Your task to perform on an android device: uninstall "Paramount+ | Peak Streaming" Image 0: 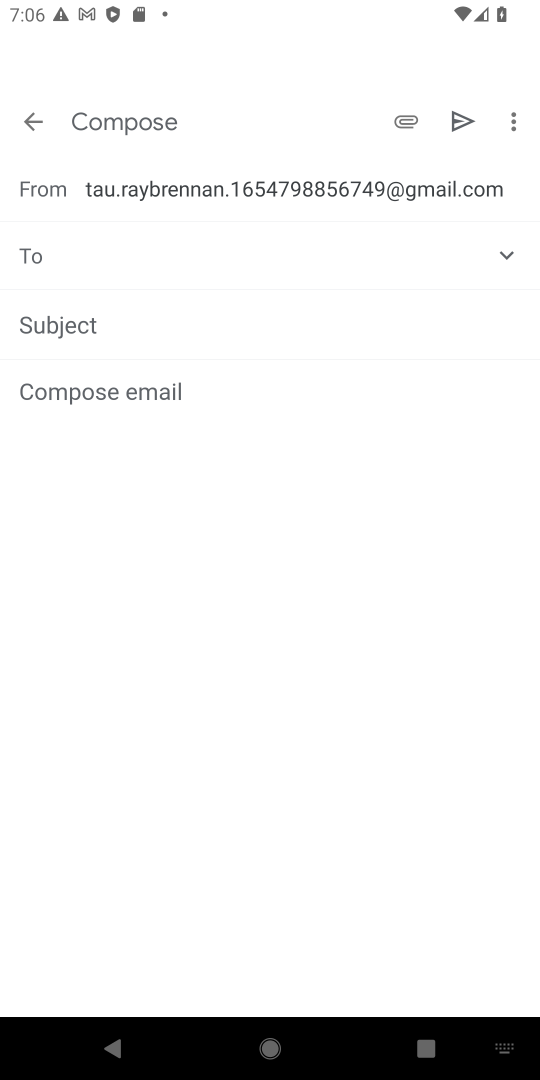
Step 0: press home button
Your task to perform on an android device: uninstall "Paramount+ | Peak Streaming" Image 1: 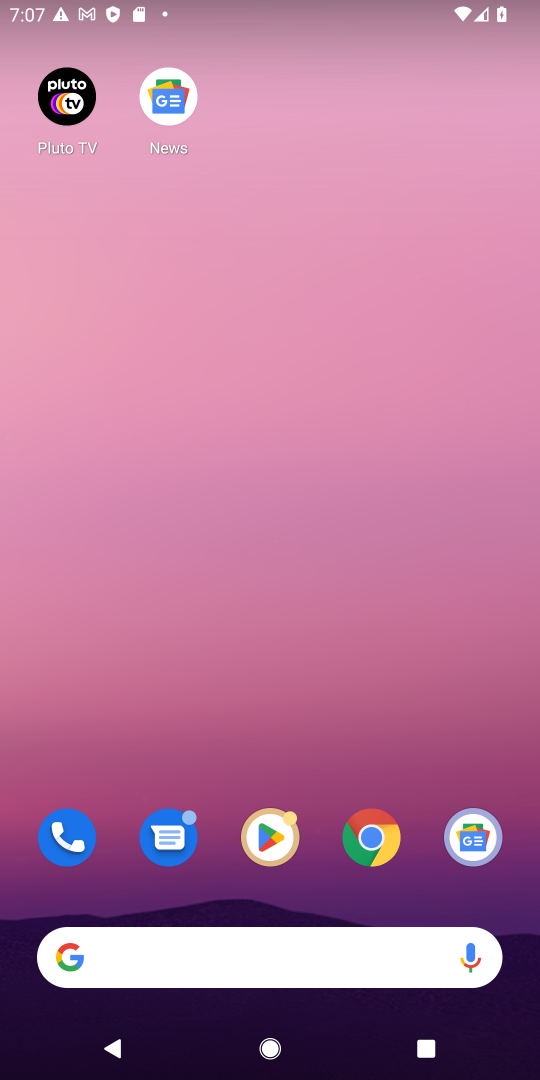
Step 1: click (263, 823)
Your task to perform on an android device: uninstall "Paramount+ | Peak Streaming" Image 2: 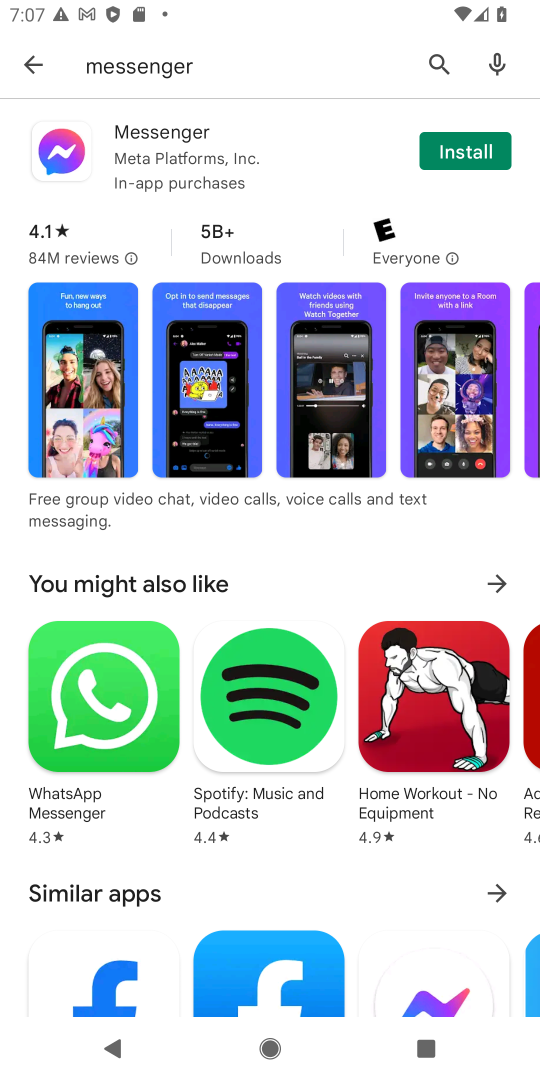
Step 2: click (193, 74)
Your task to perform on an android device: uninstall "Paramount+ | Peak Streaming" Image 3: 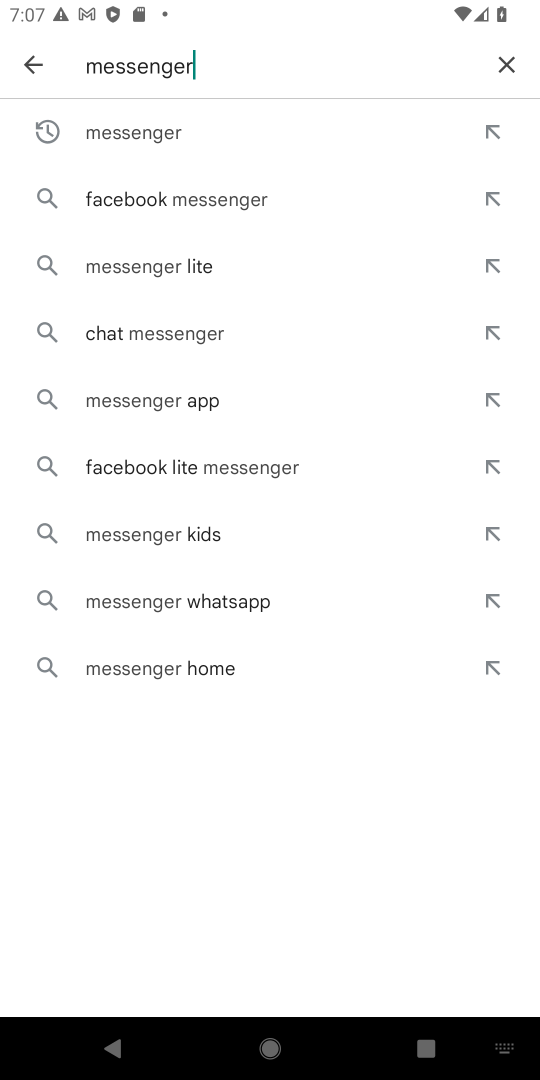
Step 3: click (500, 72)
Your task to perform on an android device: uninstall "Paramount+ | Peak Streaming" Image 4: 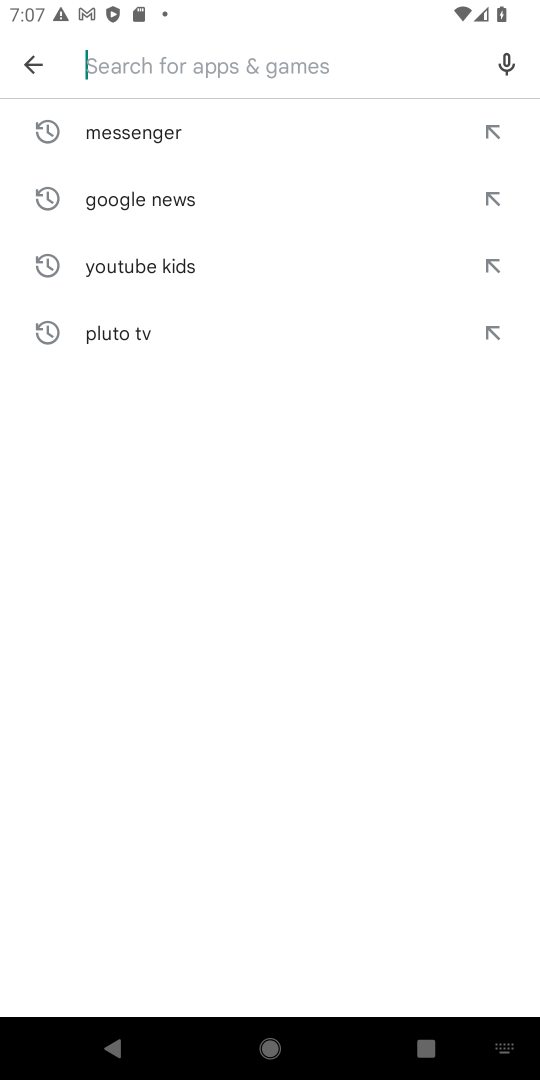
Step 4: type "Paramount +"
Your task to perform on an android device: uninstall "Paramount+ | Peak Streaming" Image 5: 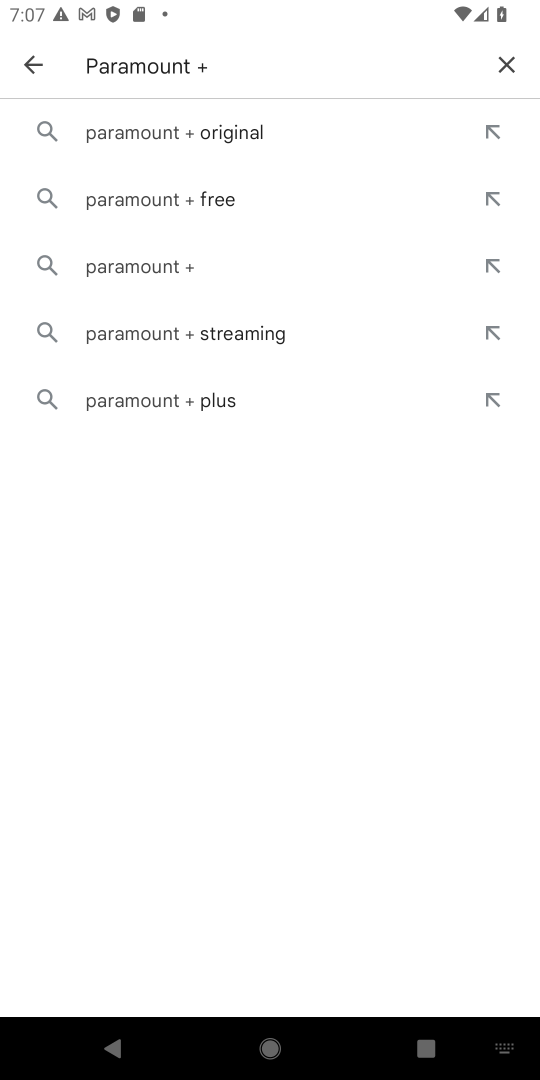
Step 5: click (123, 133)
Your task to perform on an android device: uninstall "Paramount+ | Peak Streaming" Image 6: 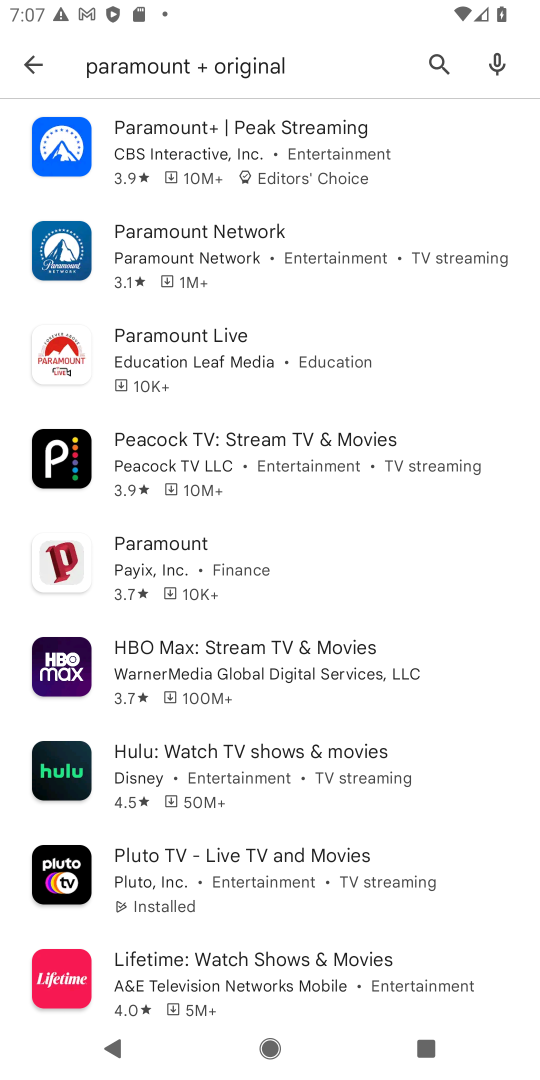
Step 6: click (158, 139)
Your task to perform on an android device: uninstall "Paramount+ | Peak Streaming" Image 7: 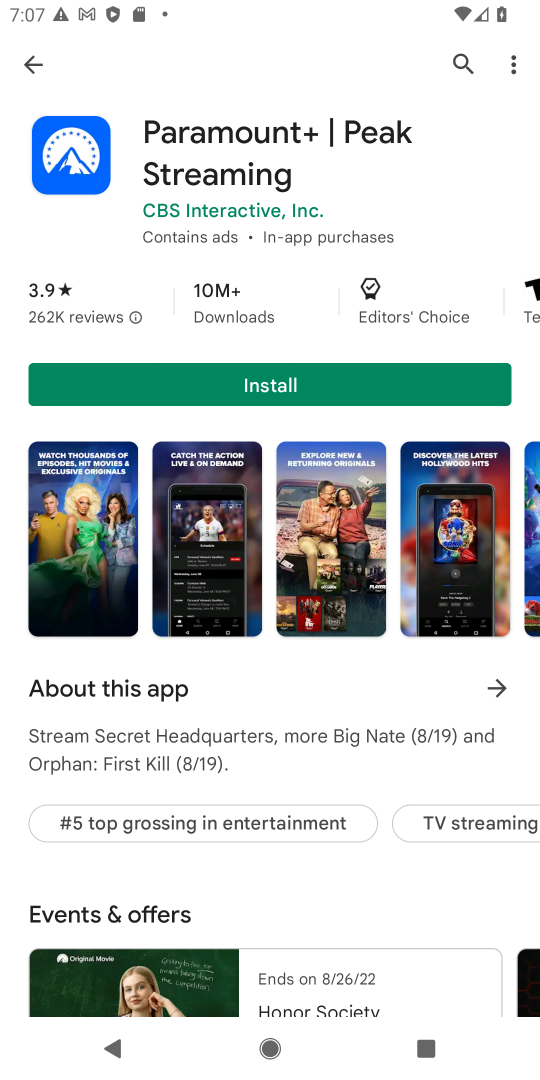
Step 7: task complete